Your task to perform on an android device: change the clock display to analog Image 0: 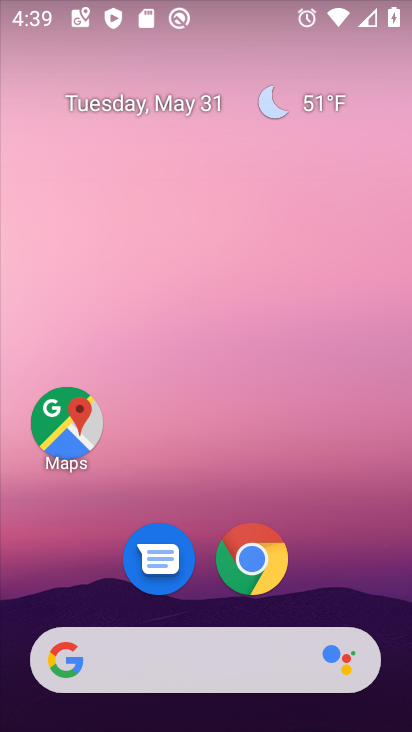
Step 0: drag from (356, 599) to (384, 26)
Your task to perform on an android device: change the clock display to analog Image 1: 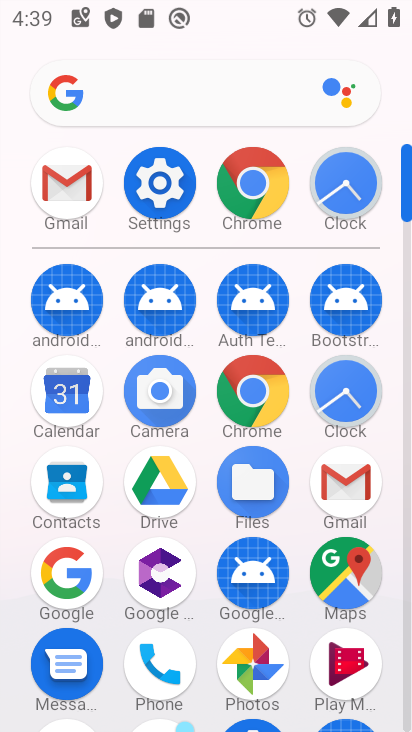
Step 1: click (347, 387)
Your task to perform on an android device: change the clock display to analog Image 2: 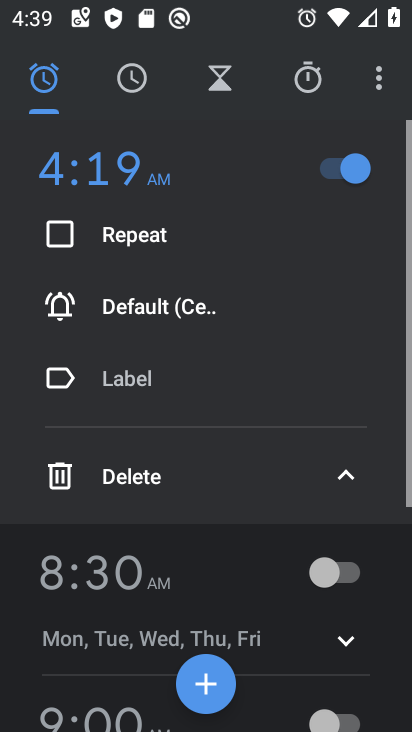
Step 2: click (386, 67)
Your task to perform on an android device: change the clock display to analog Image 3: 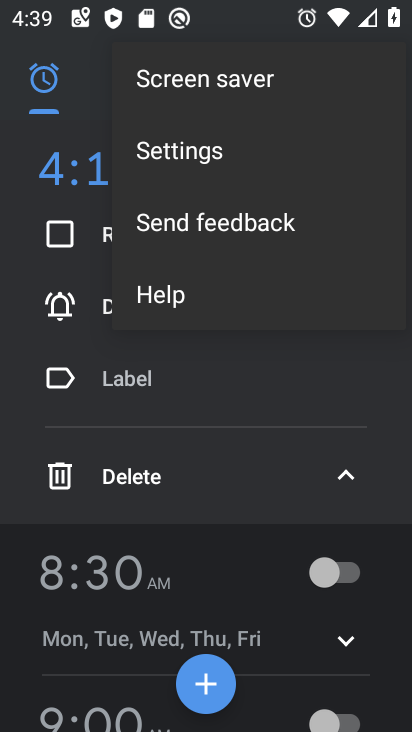
Step 3: click (233, 158)
Your task to perform on an android device: change the clock display to analog Image 4: 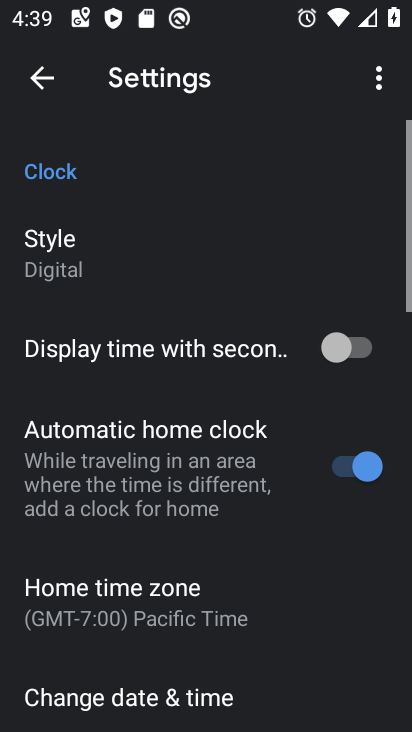
Step 4: click (77, 237)
Your task to perform on an android device: change the clock display to analog Image 5: 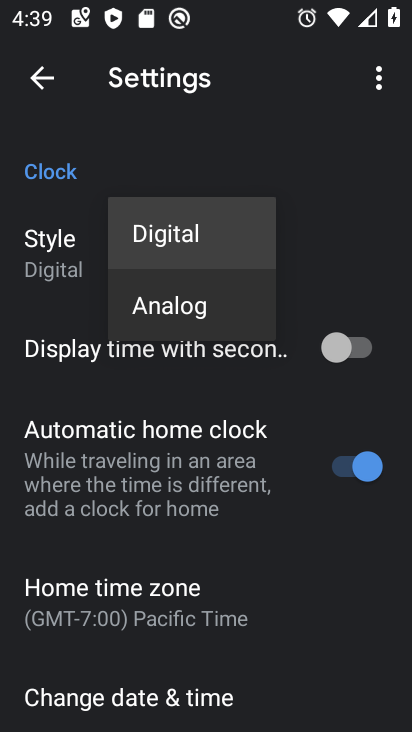
Step 5: click (158, 302)
Your task to perform on an android device: change the clock display to analog Image 6: 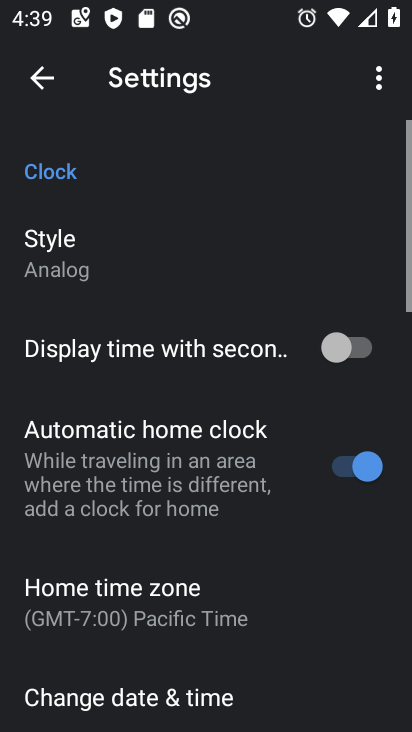
Step 6: task complete